Your task to perform on an android device: change your default location settings in chrome Image 0: 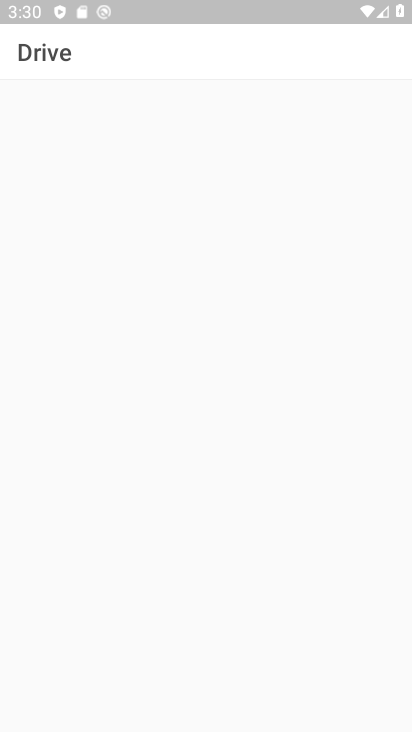
Step 0: press home button
Your task to perform on an android device: change your default location settings in chrome Image 1: 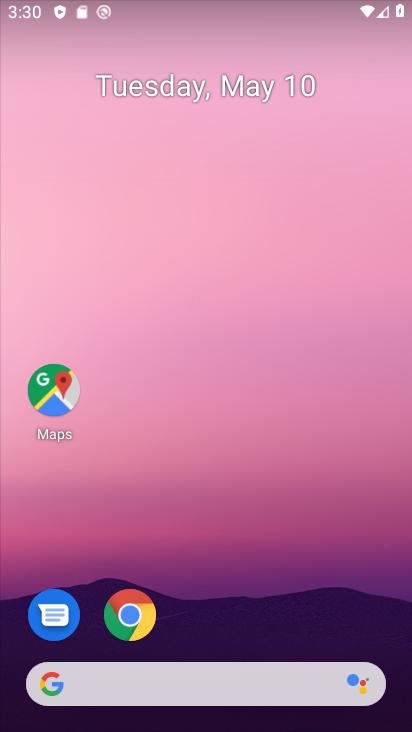
Step 1: click (120, 619)
Your task to perform on an android device: change your default location settings in chrome Image 2: 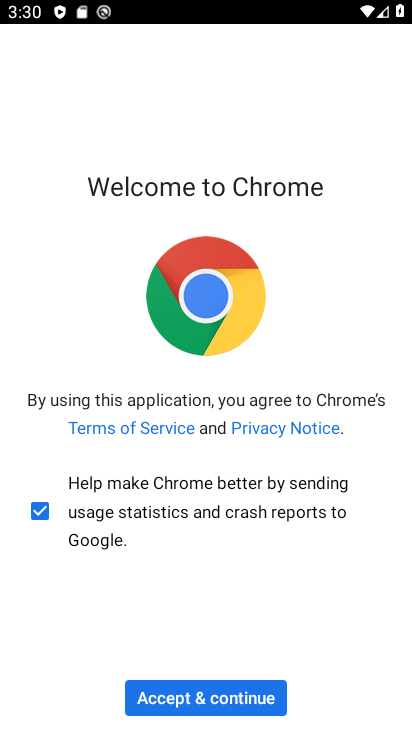
Step 2: click (209, 691)
Your task to perform on an android device: change your default location settings in chrome Image 3: 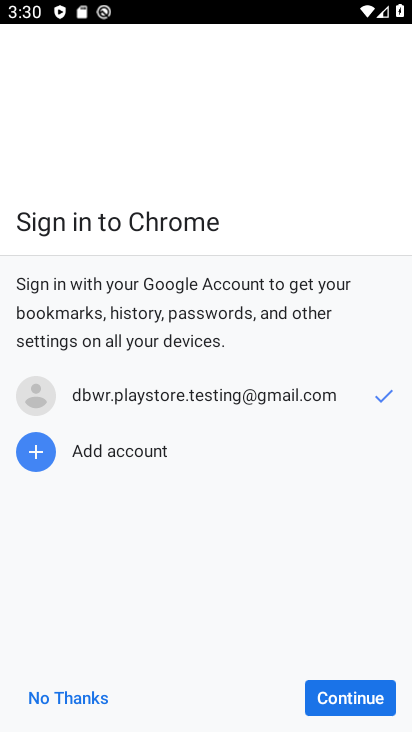
Step 3: click (349, 696)
Your task to perform on an android device: change your default location settings in chrome Image 4: 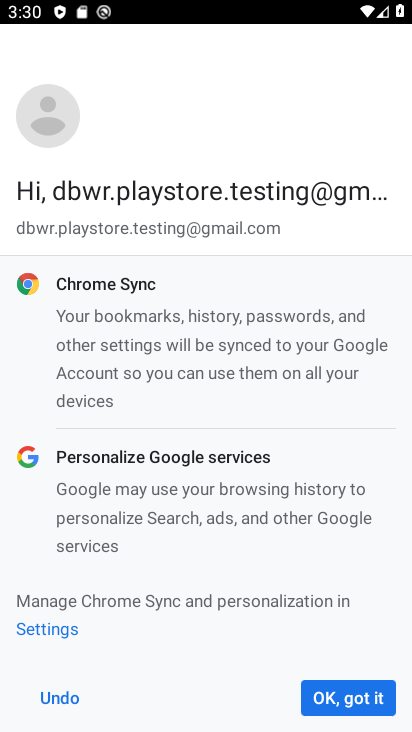
Step 4: click (349, 696)
Your task to perform on an android device: change your default location settings in chrome Image 5: 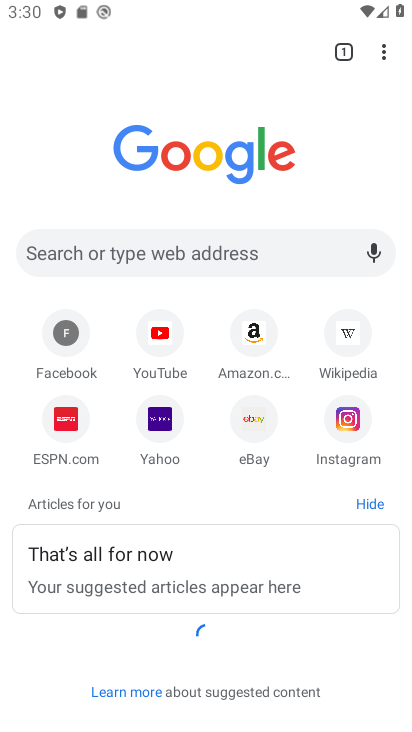
Step 5: drag from (383, 60) to (218, 442)
Your task to perform on an android device: change your default location settings in chrome Image 6: 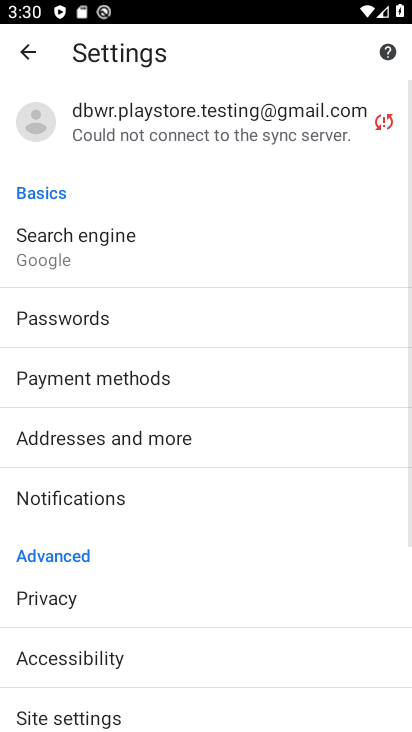
Step 6: drag from (149, 642) to (160, 286)
Your task to perform on an android device: change your default location settings in chrome Image 7: 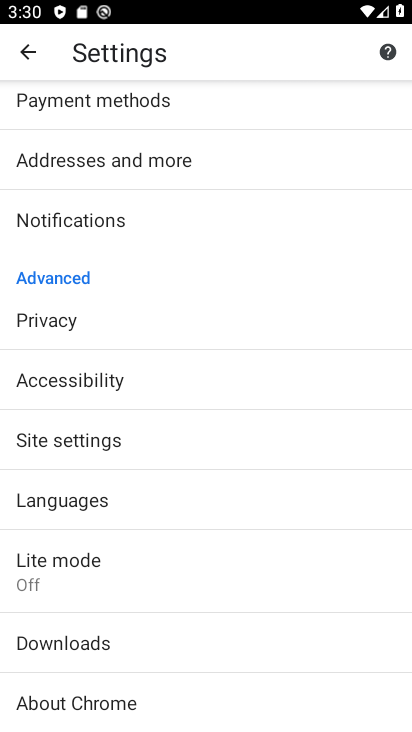
Step 7: click (102, 443)
Your task to perform on an android device: change your default location settings in chrome Image 8: 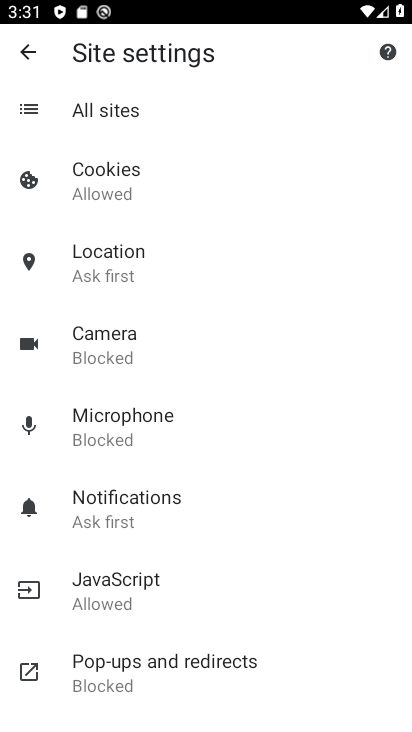
Step 8: drag from (217, 590) to (217, 214)
Your task to perform on an android device: change your default location settings in chrome Image 9: 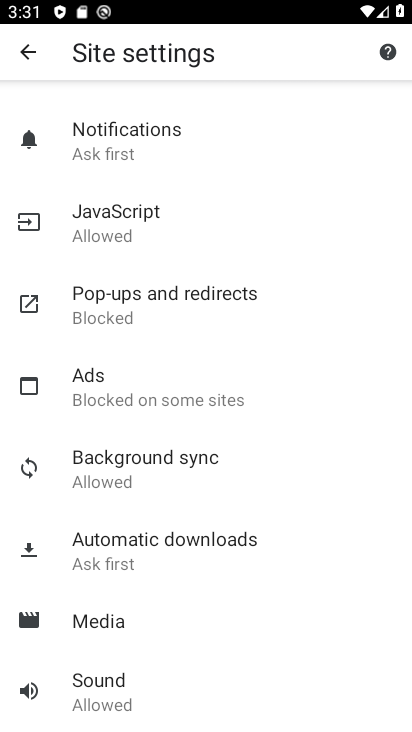
Step 9: drag from (203, 189) to (199, 525)
Your task to perform on an android device: change your default location settings in chrome Image 10: 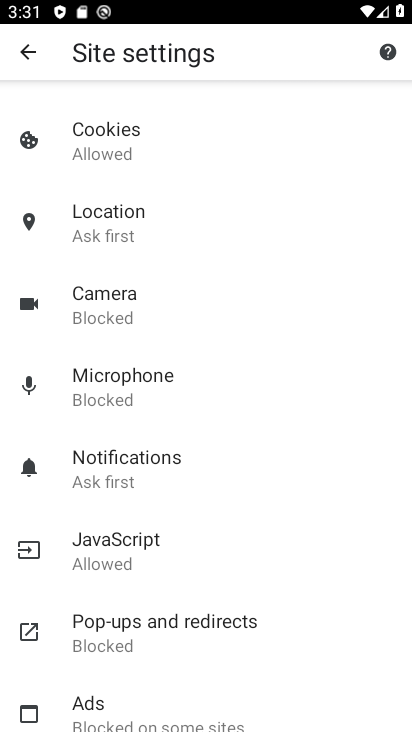
Step 10: click (100, 221)
Your task to perform on an android device: change your default location settings in chrome Image 11: 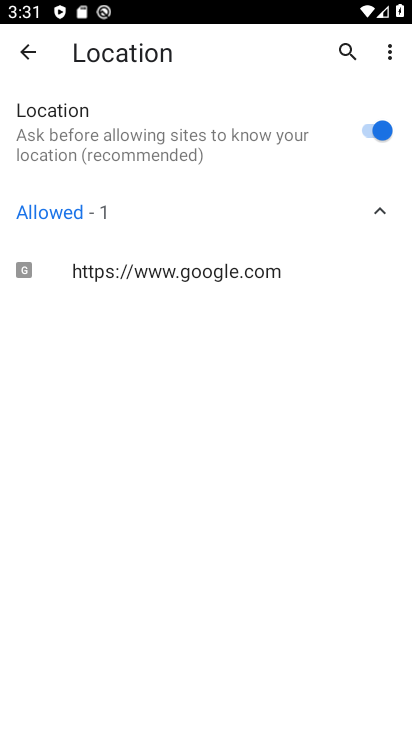
Step 11: click (95, 144)
Your task to perform on an android device: change your default location settings in chrome Image 12: 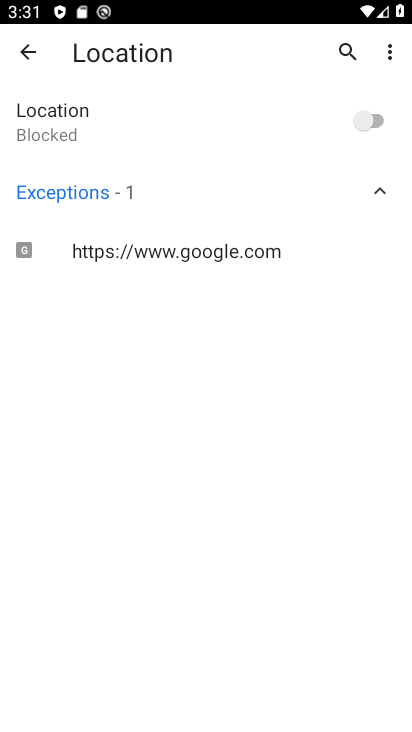
Step 12: task complete